Your task to perform on an android device: turn off location history Image 0: 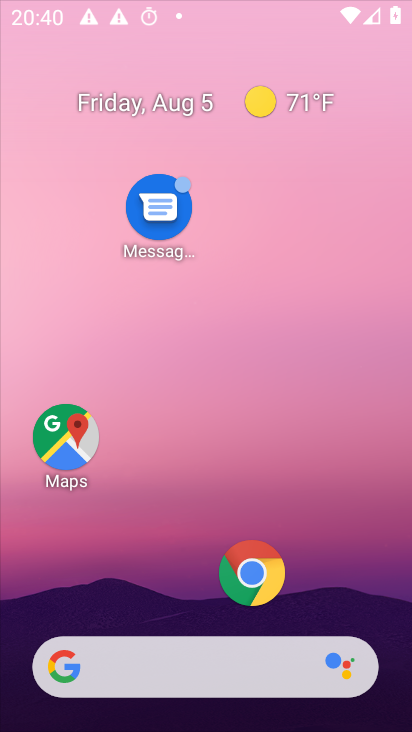
Step 0: press home button
Your task to perform on an android device: turn off location history Image 1: 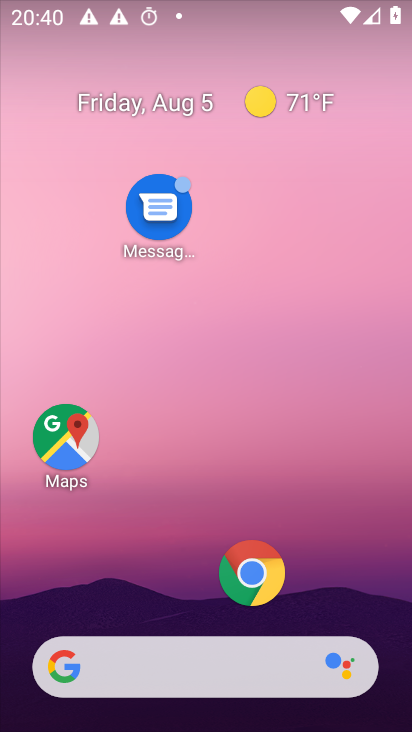
Step 1: press home button
Your task to perform on an android device: turn off location history Image 2: 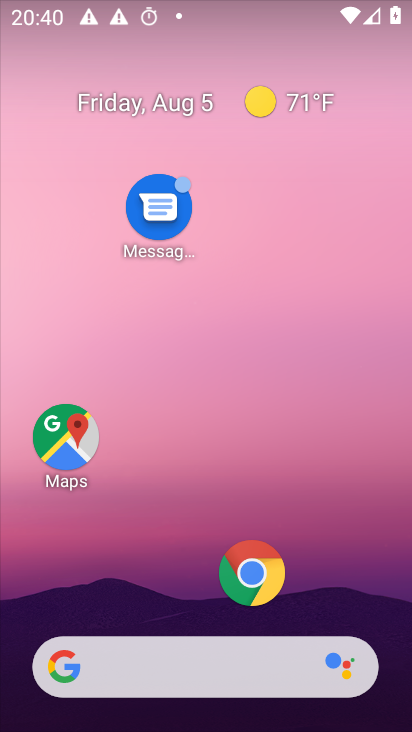
Step 2: drag from (198, 605) to (271, 95)
Your task to perform on an android device: turn off location history Image 3: 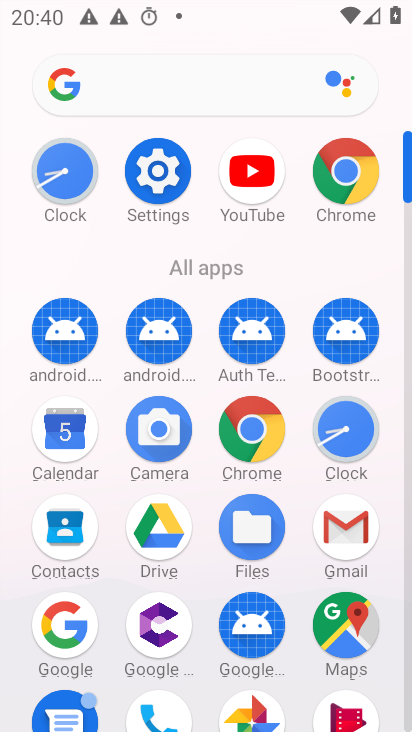
Step 3: click (151, 169)
Your task to perform on an android device: turn off location history Image 4: 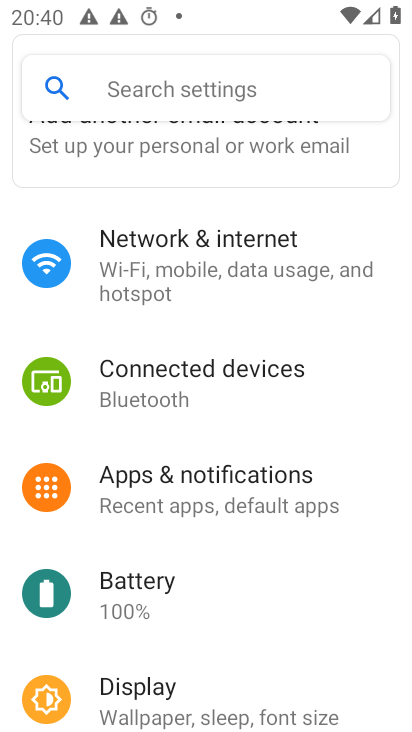
Step 4: drag from (215, 643) to (260, 227)
Your task to perform on an android device: turn off location history Image 5: 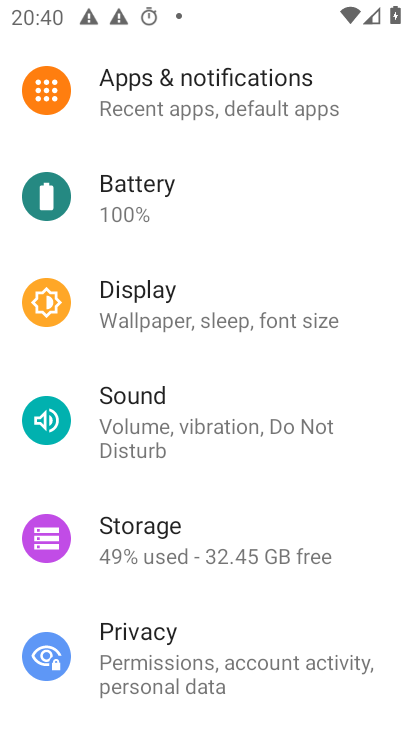
Step 5: drag from (220, 633) to (234, 312)
Your task to perform on an android device: turn off location history Image 6: 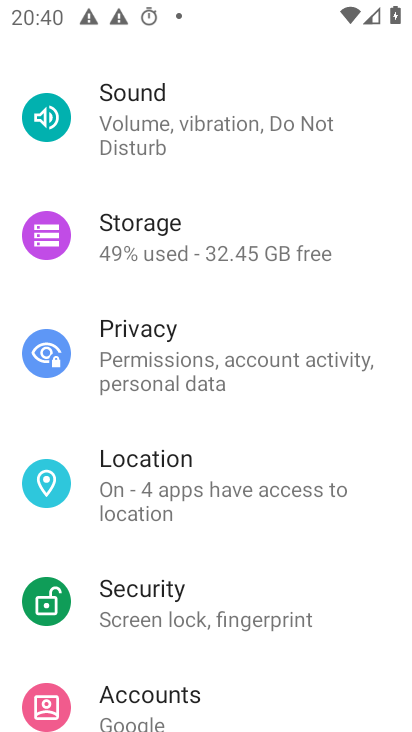
Step 6: click (180, 479)
Your task to perform on an android device: turn off location history Image 7: 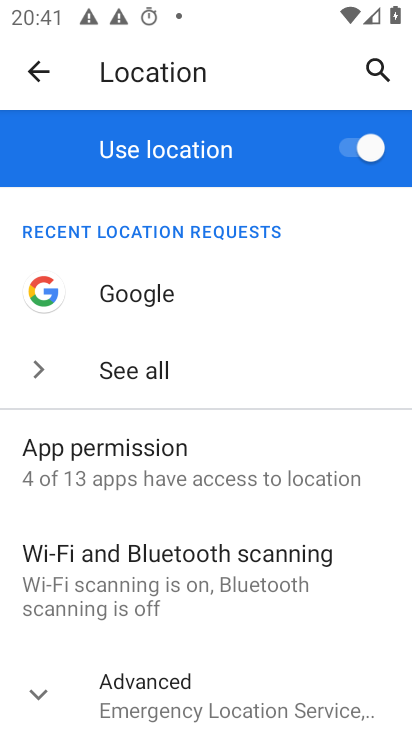
Step 7: click (35, 683)
Your task to perform on an android device: turn off location history Image 8: 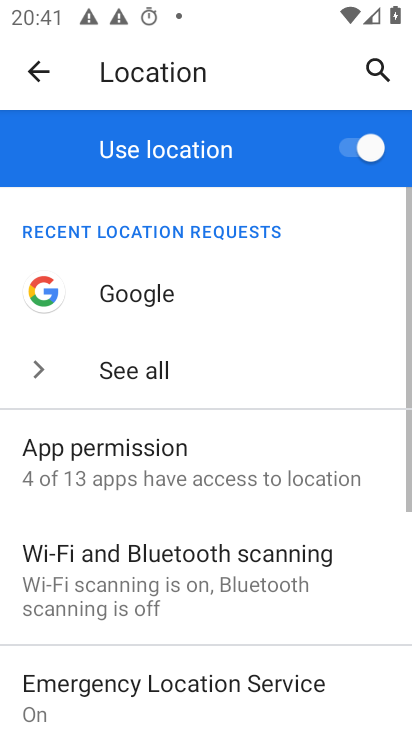
Step 8: drag from (147, 651) to (198, 270)
Your task to perform on an android device: turn off location history Image 9: 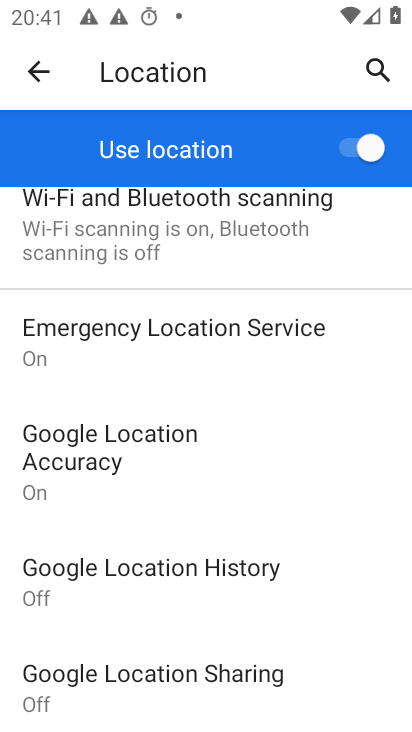
Step 9: click (134, 588)
Your task to perform on an android device: turn off location history Image 10: 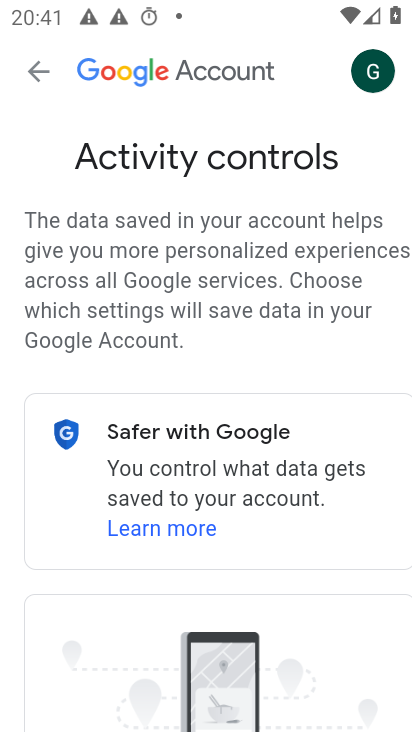
Step 10: task complete